Your task to perform on an android device: Search for hotels in Paris Image 0: 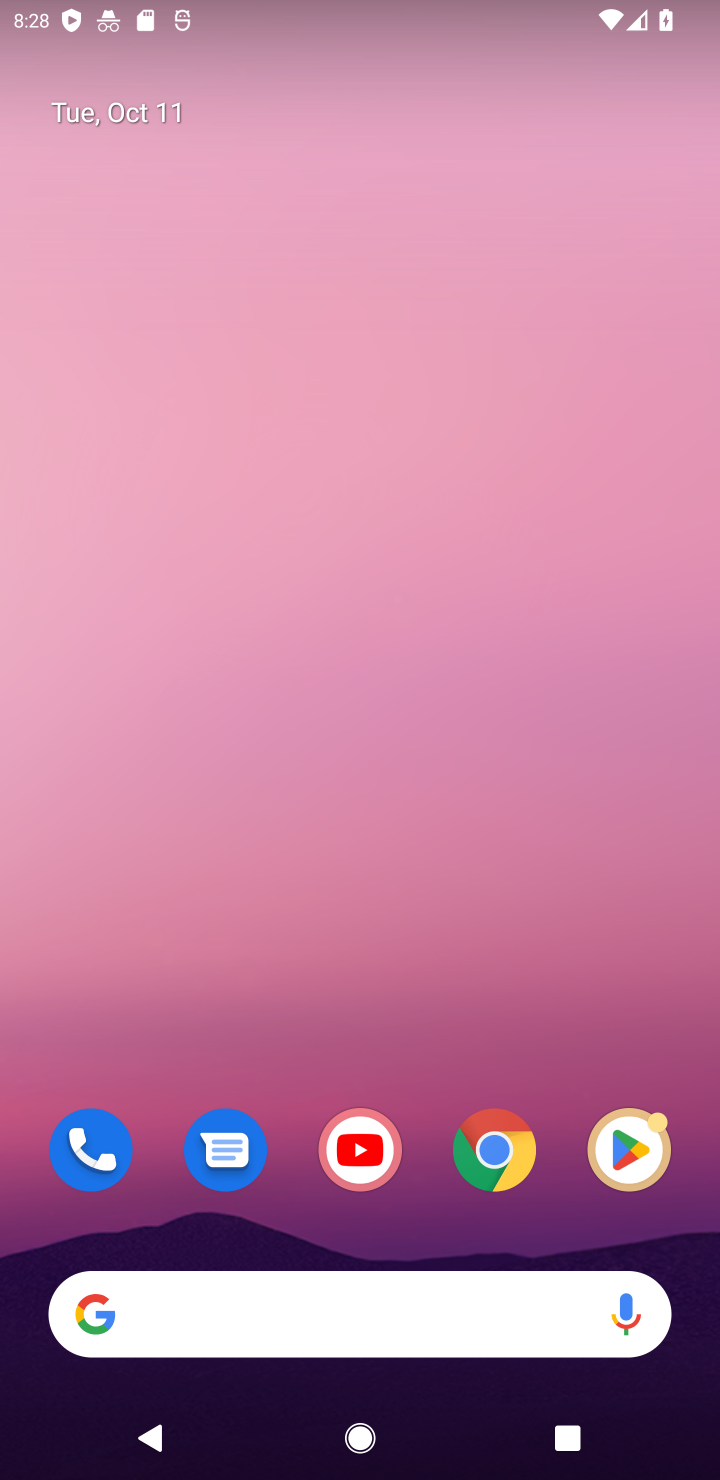
Step 0: click (499, 1164)
Your task to perform on an android device: Search for hotels in Paris Image 1: 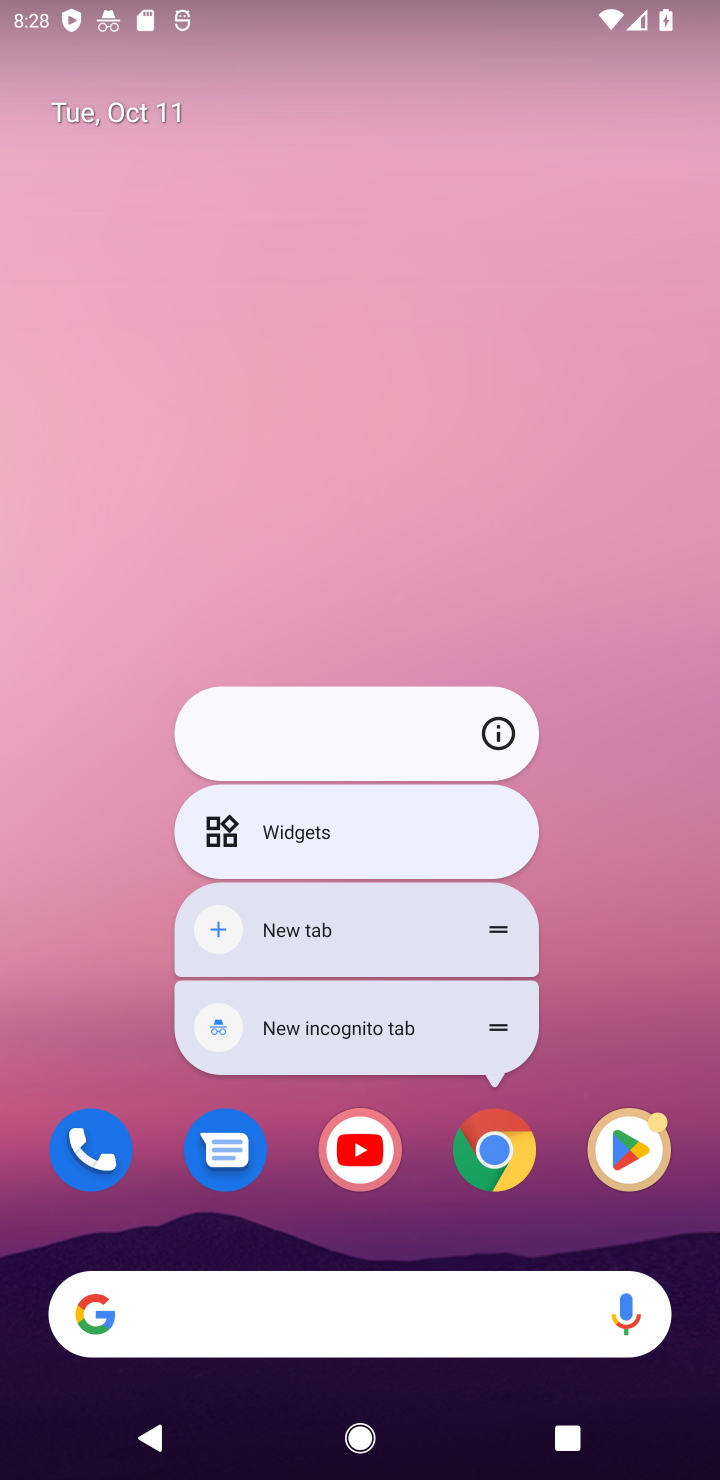
Step 1: click (477, 1155)
Your task to perform on an android device: Search for hotels in Paris Image 2: 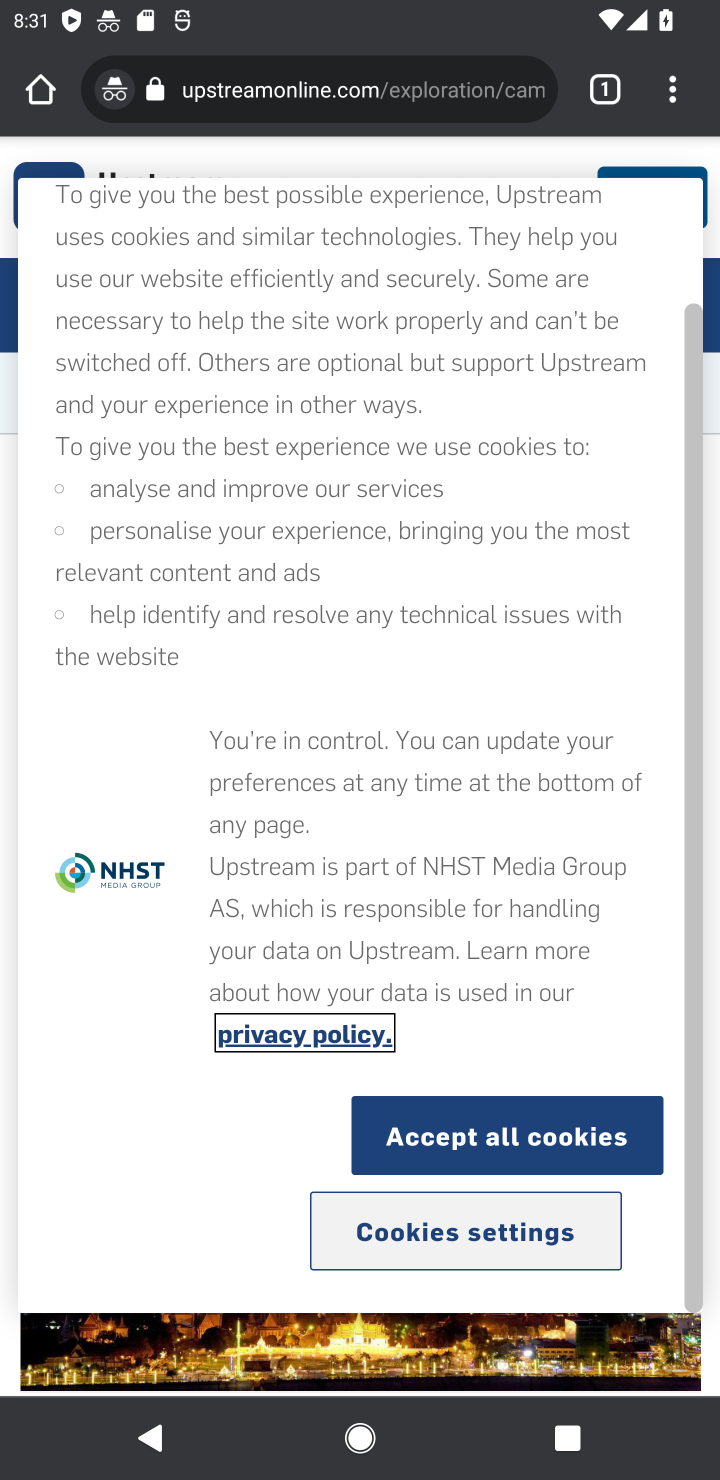
Step 2: press home button
Your task to perform on an android device: Search for hotels in Paris Image 3: 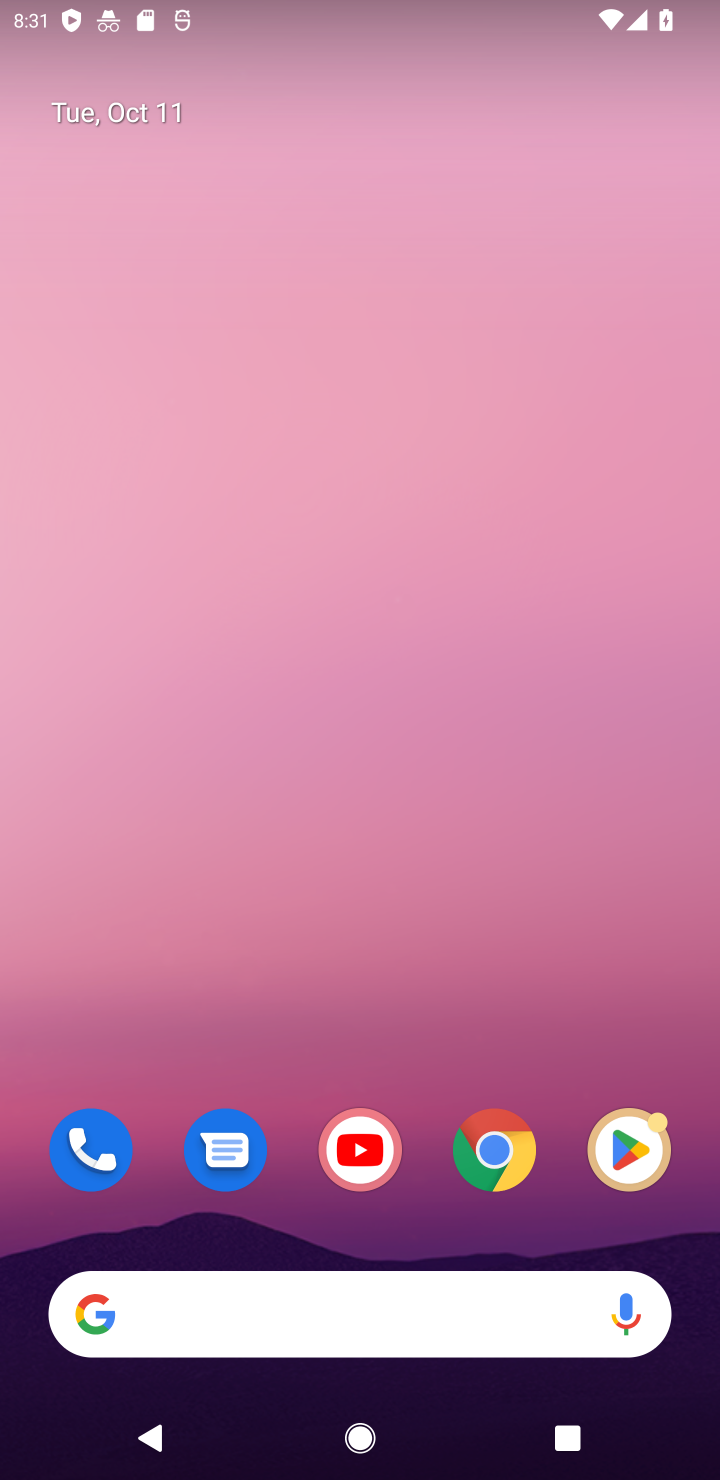
Step 3: click (491, 1156)
Your task to perform on an android device: Search for hotels in Paris Image 4: 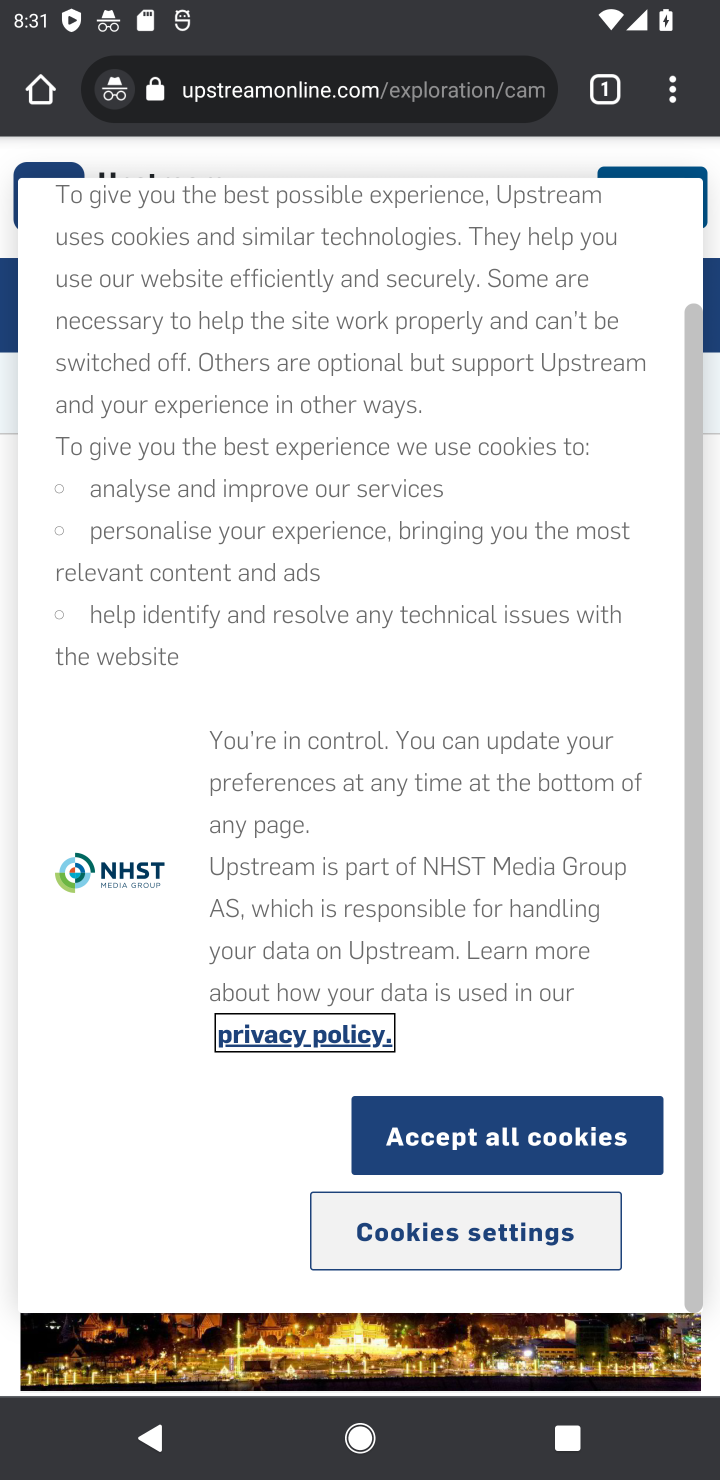
Step 4: click (312, 94)
Your task to perform on an android device: Search for hotels in Paris Image 5: 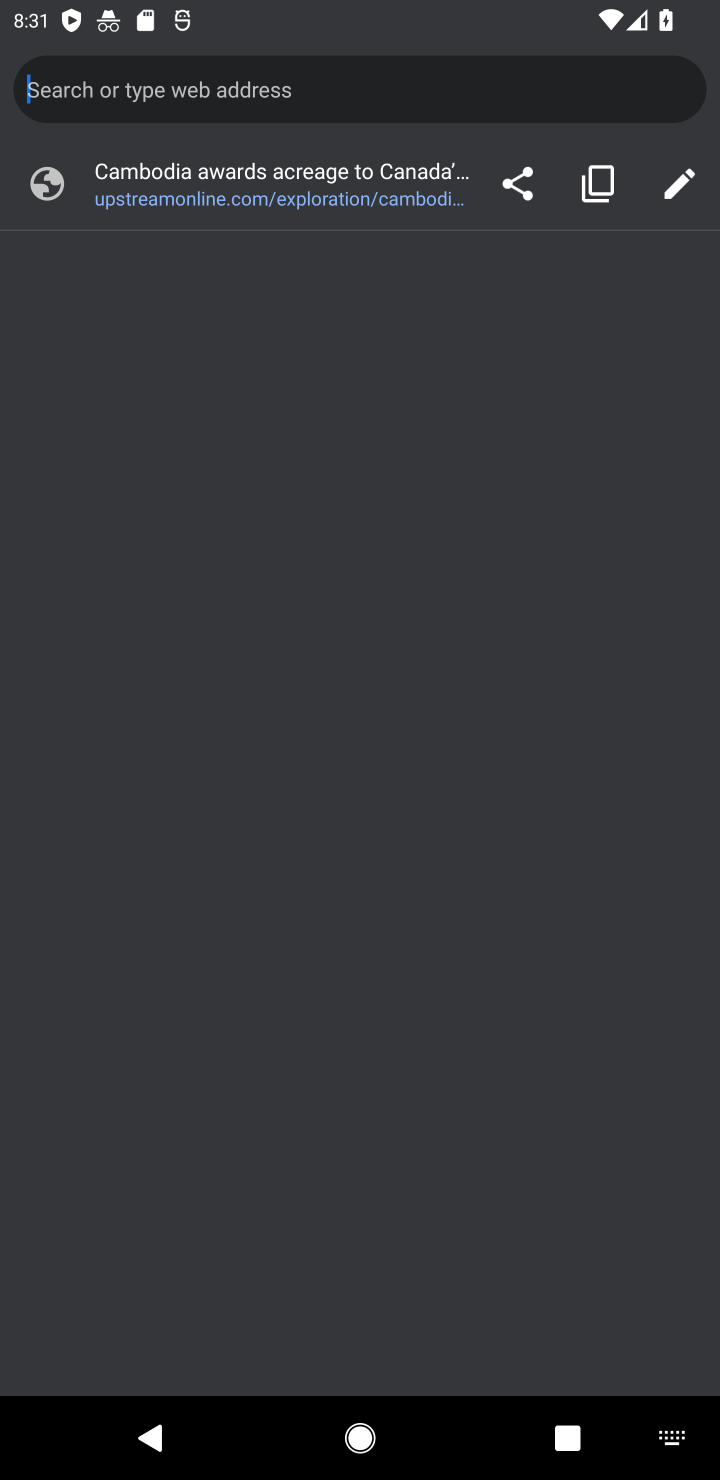
Step 5: type "hotels in paris"
Your task to perform on an android device: Search for hotels in Paris Image 6: 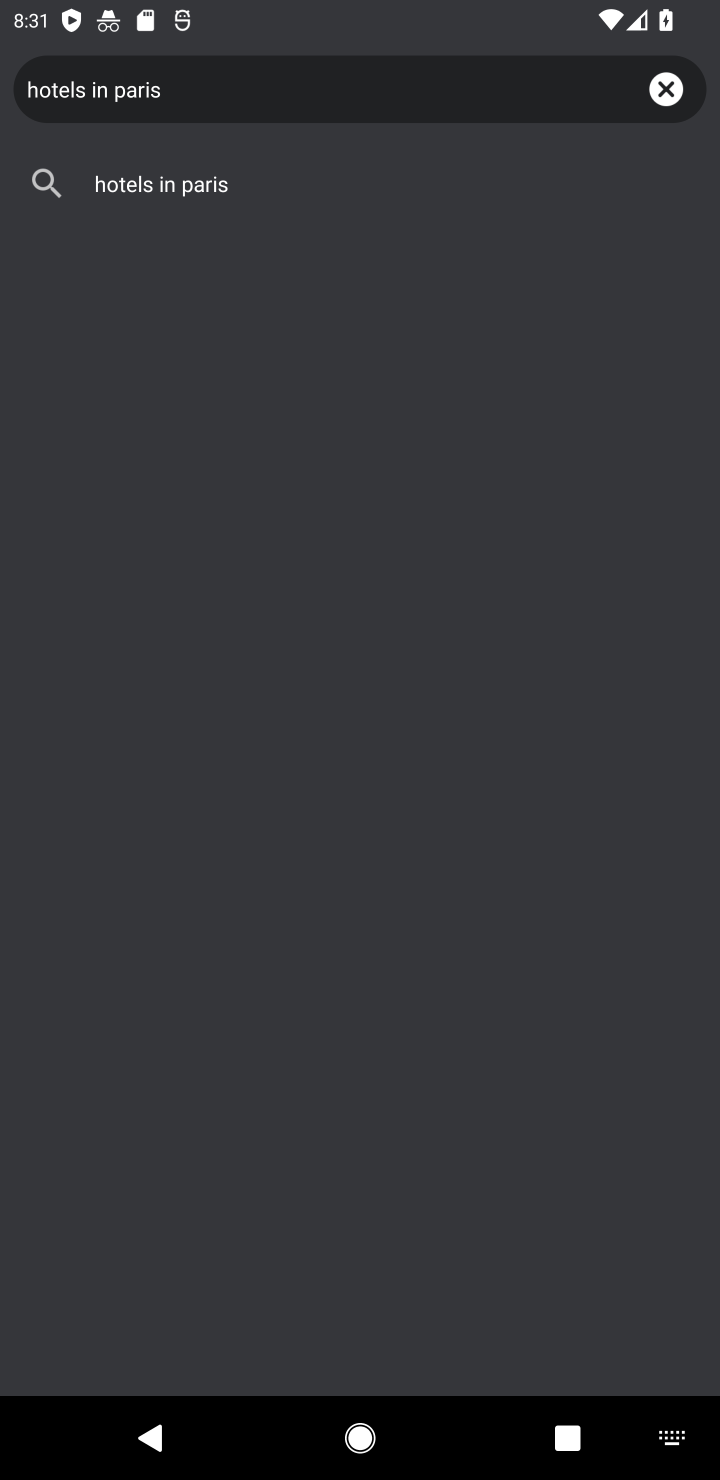
Step 6: click (199, 183)
Your task to perform on an android device: Search for hotels in Paris Image 7: 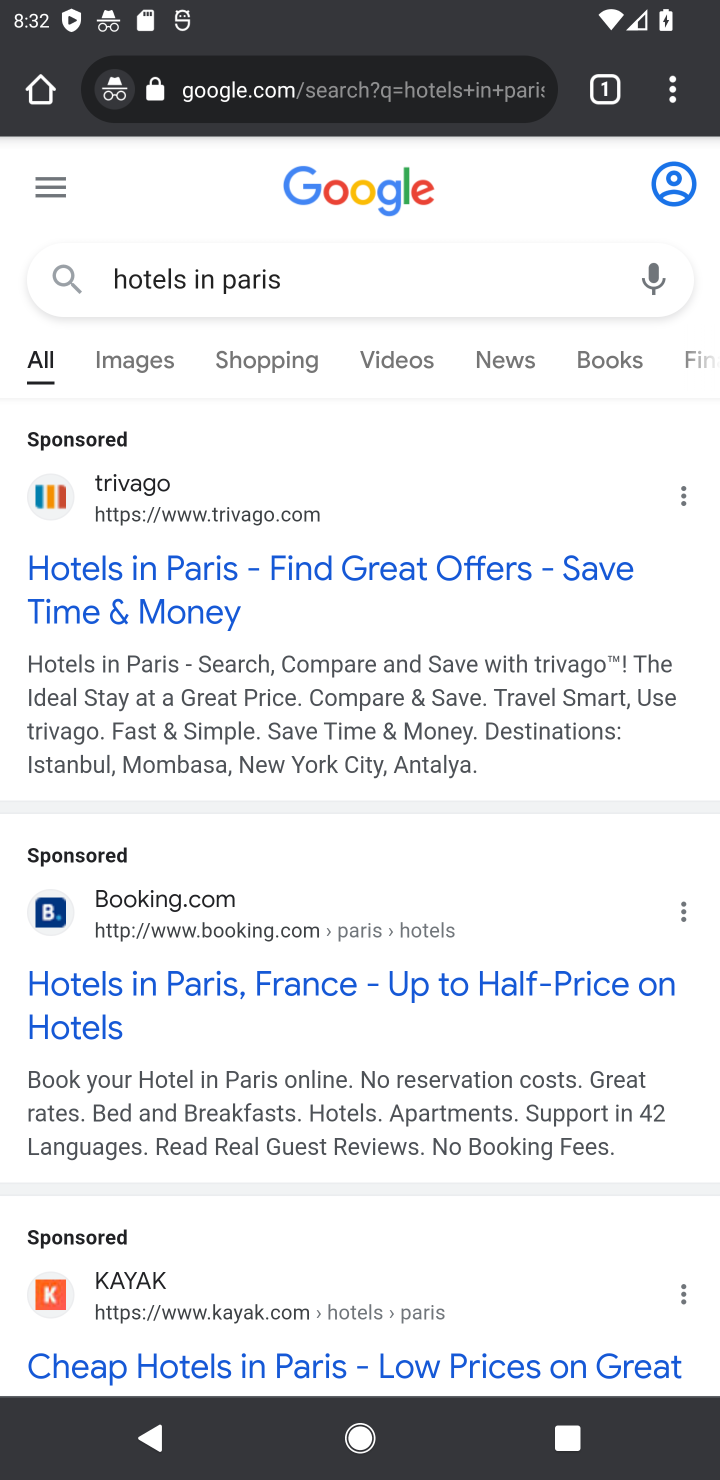
Step 7: click (108, 584)
Your task to perform on an android device: Search for hotels in Paris Image 8: 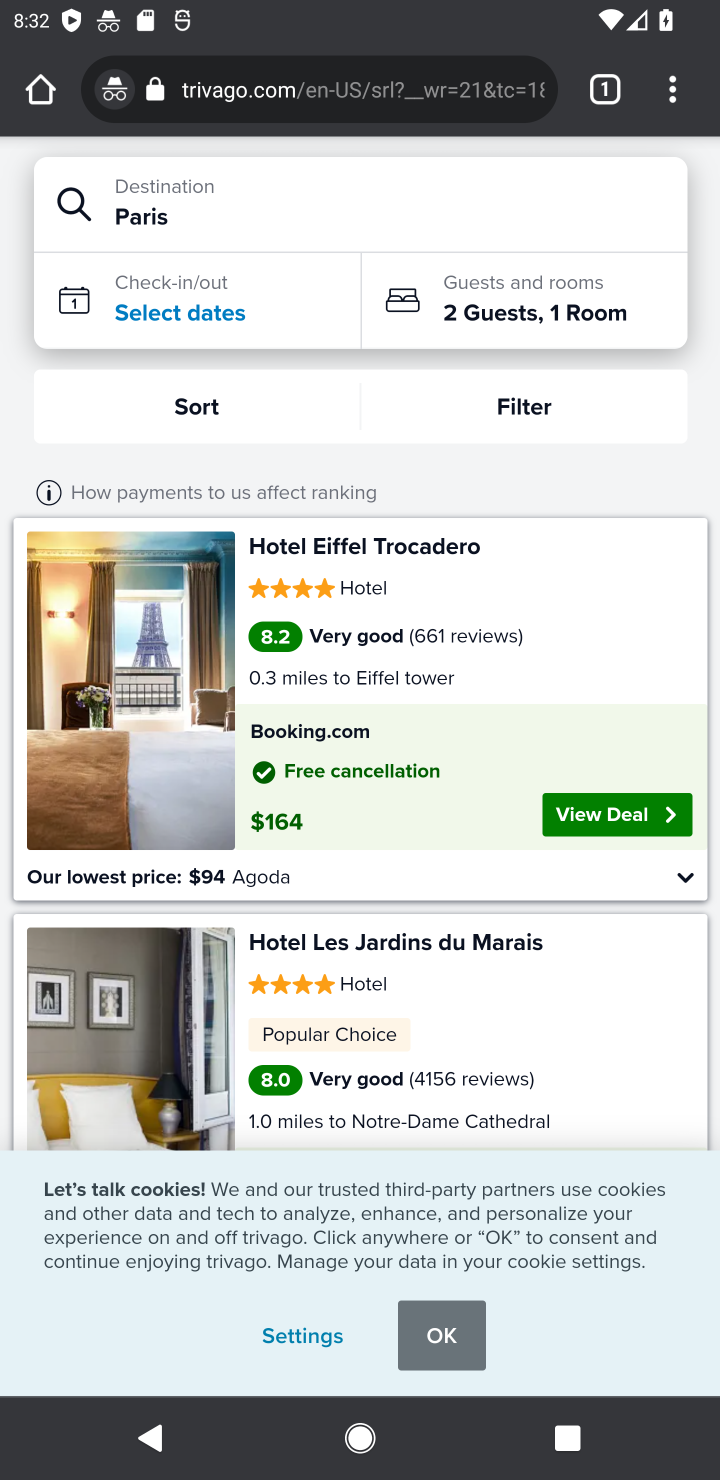
Step 8: task complete